Your task to perform on an android device: Open Maps and search for coffee Image 0: 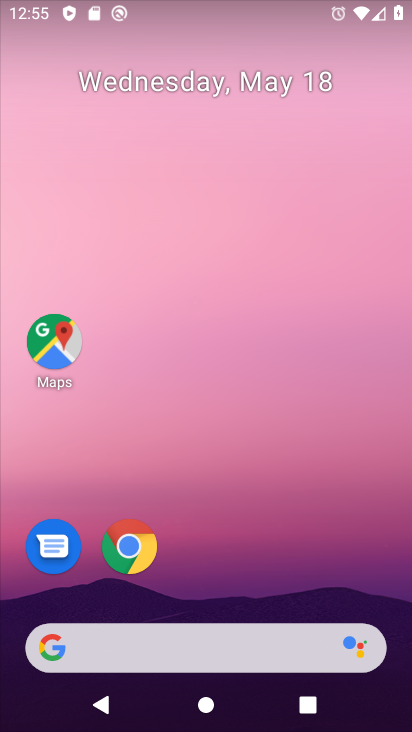
Step 0: drag from (211, 689) to (296, 38)
Your task to perform on an android device: Open Maps and search for coffee Image 1: 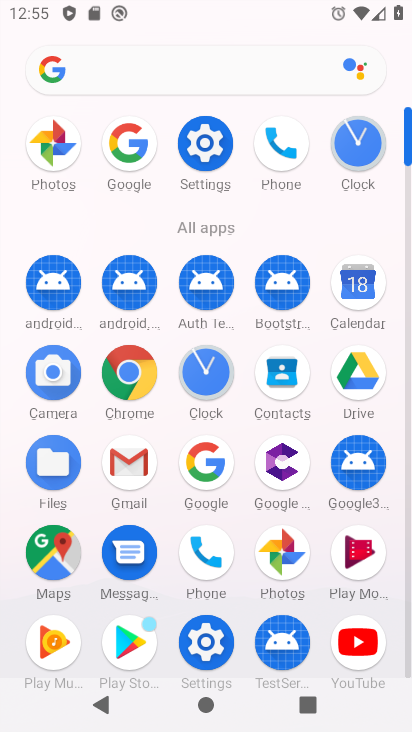
Step 1: click (52, 581)
Your task to perform on an android device: Open Maps and search for coffee Image 2: 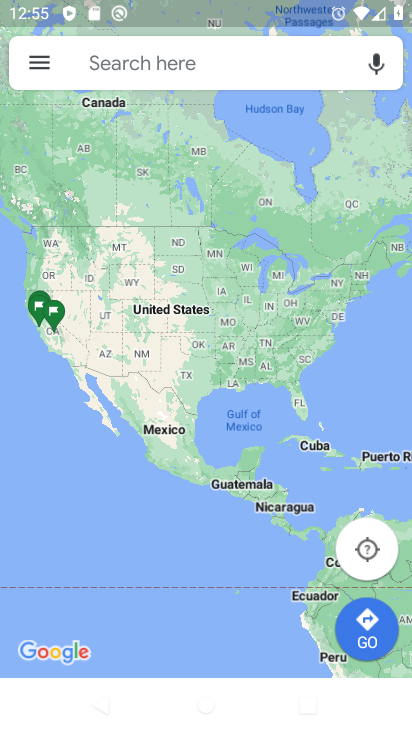
Step 2: click (204, 81)
Your task to perform on an android device: Open Maps and search for coffee Image 3: 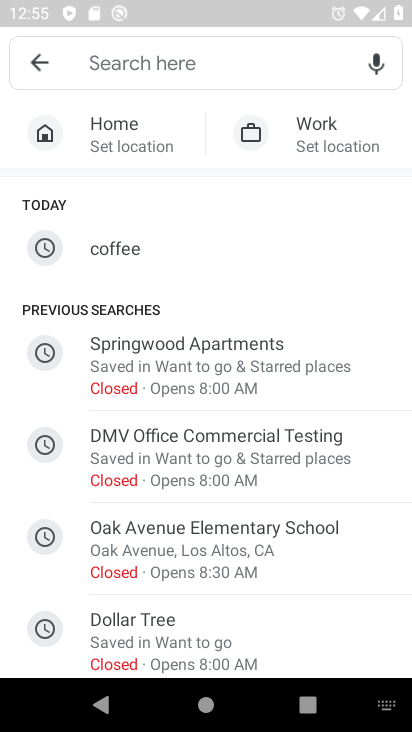
Step 3: click (205, 247)
Your task to perform on an android device: Open Maps and search for coffee Image 4: 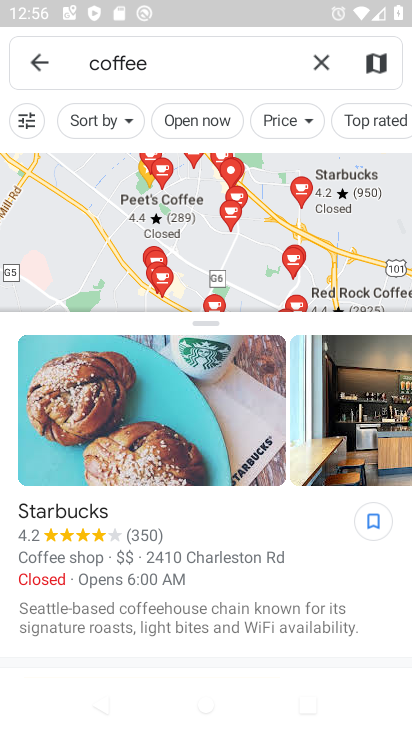
Step 4: task complete